Your task to perform on an android device: Empty the shopping cart on target.com. Add asus zenbook to the cart on target.com Image 0: 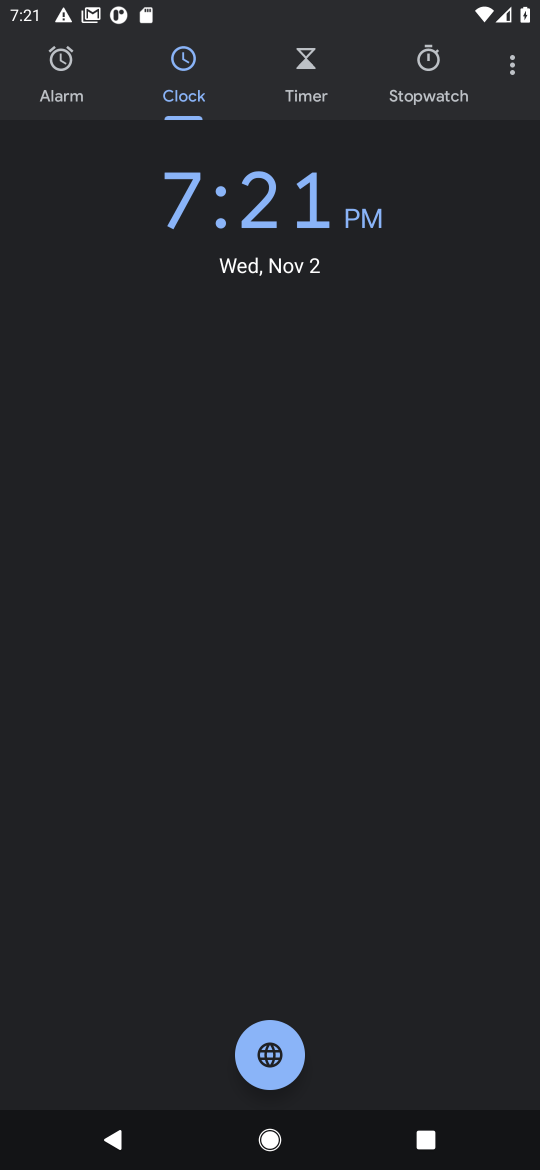
Step 0: press home button
Your task to perform on an android device: Empty the shopping cart on target.com. Add asus zenbook to the cart on target.com Image 1: 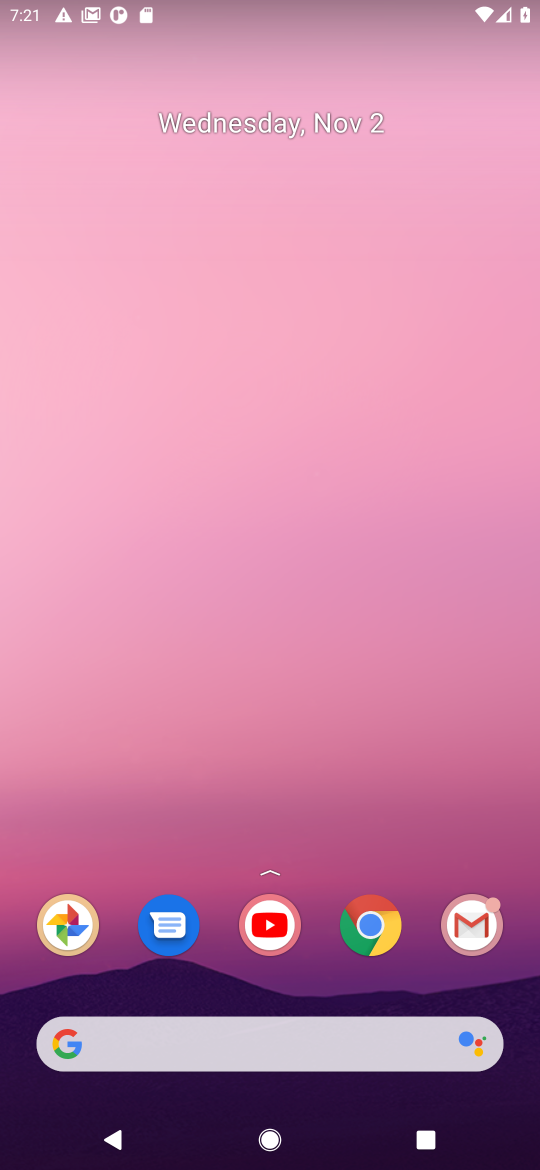
Step 1: click (101, 1032)
Your task to perform on an android device: Empty the shopping cart on target.com. Add asus zenbook to the cart on target.com Image 2: 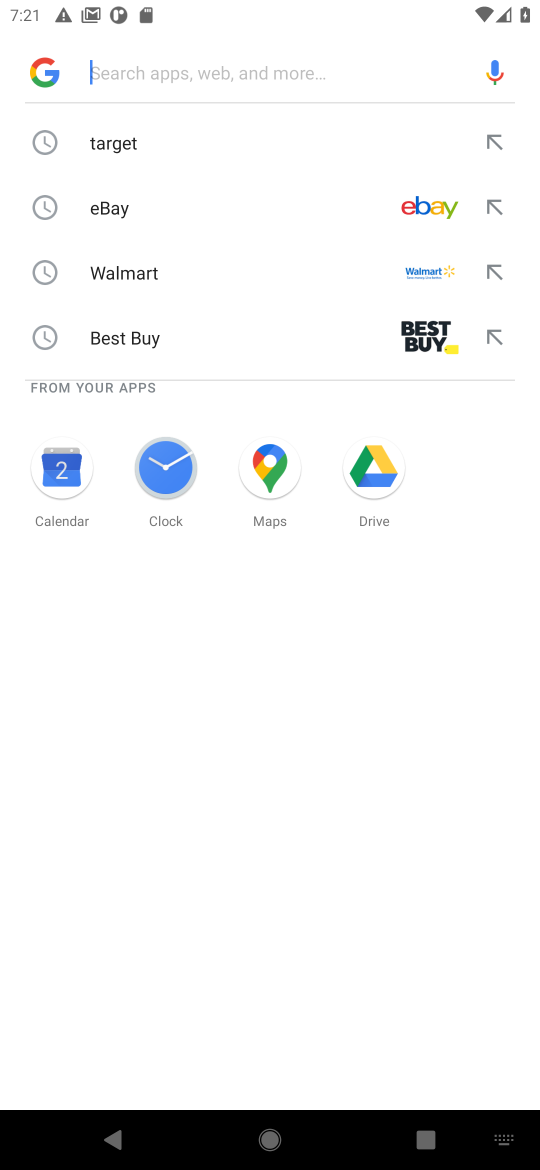
Step 2: type "target.com"
Your task to perform on an android device: Empty the shopping cart on target.com. Add asus zenbook to the cart on target.com Image 3: 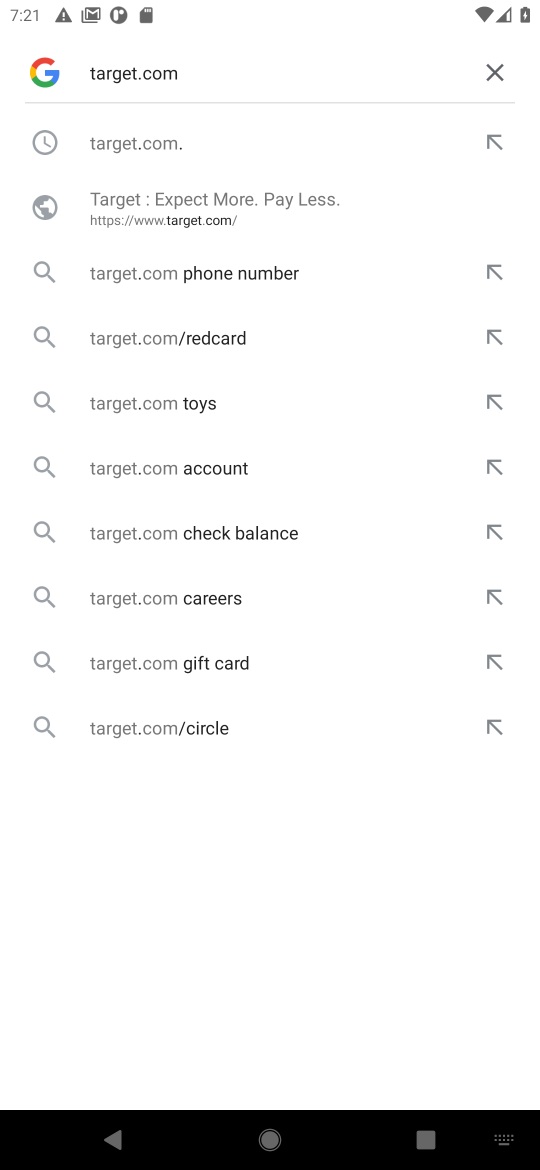
Step 3: press enter
Your task to perform on an android device: Empty the shopping cart on target.com. Add asus zenbook to the cart on target.com Image 4: 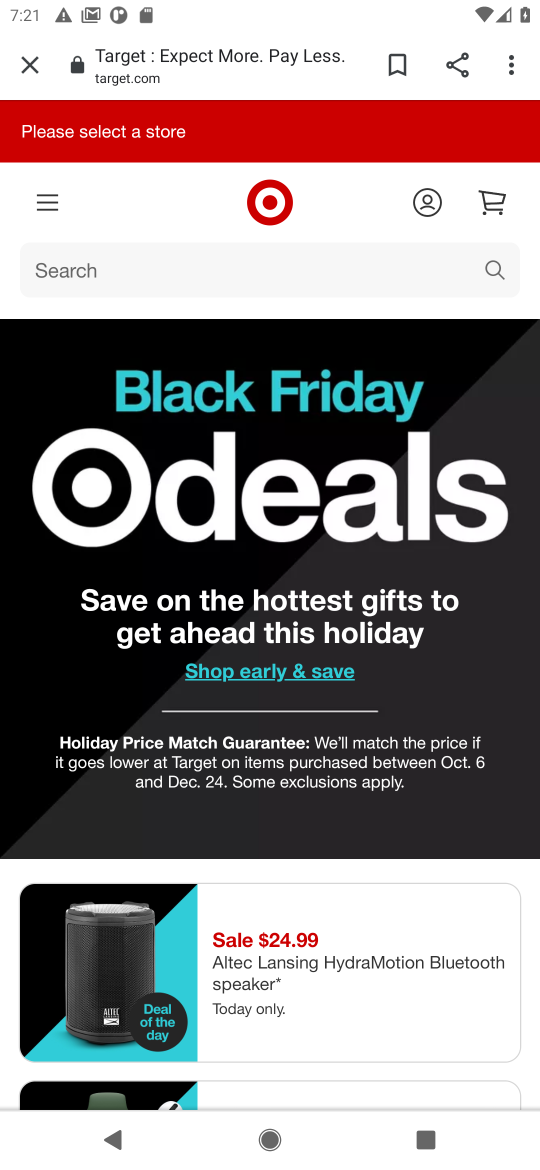
Step 4: click (491, 198)
Your task to perform on an android device: Empty the shopping cart on target.com. Add asus zenbook to the cart on target.com Image 5: 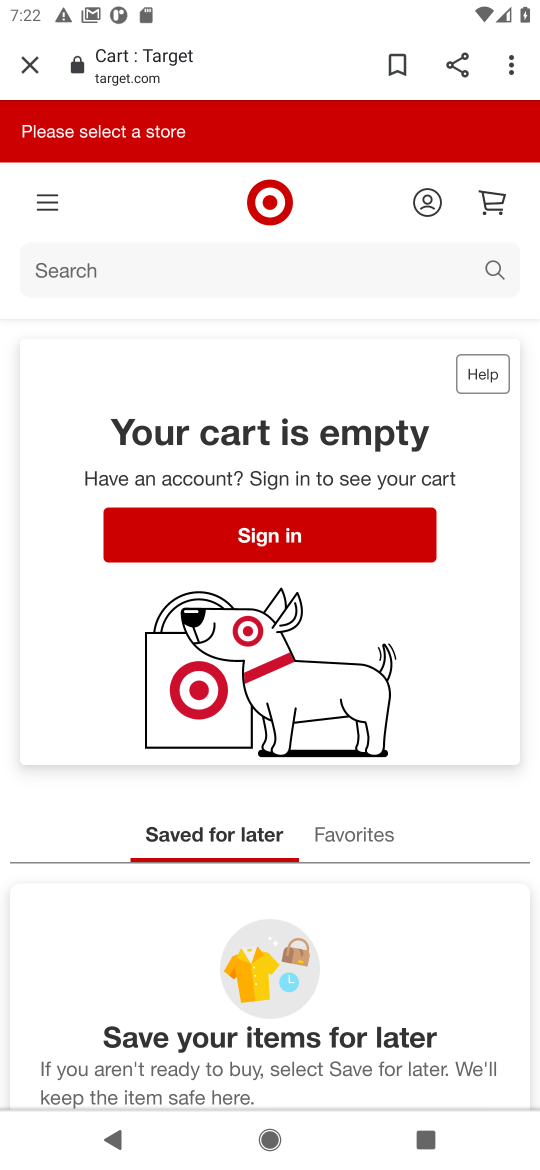
Step 5: click (109, 259)
Your task to perform on an android device: Empty the shopping cart on target.com. Add asus zenbook to the cart on target.com Image 6: 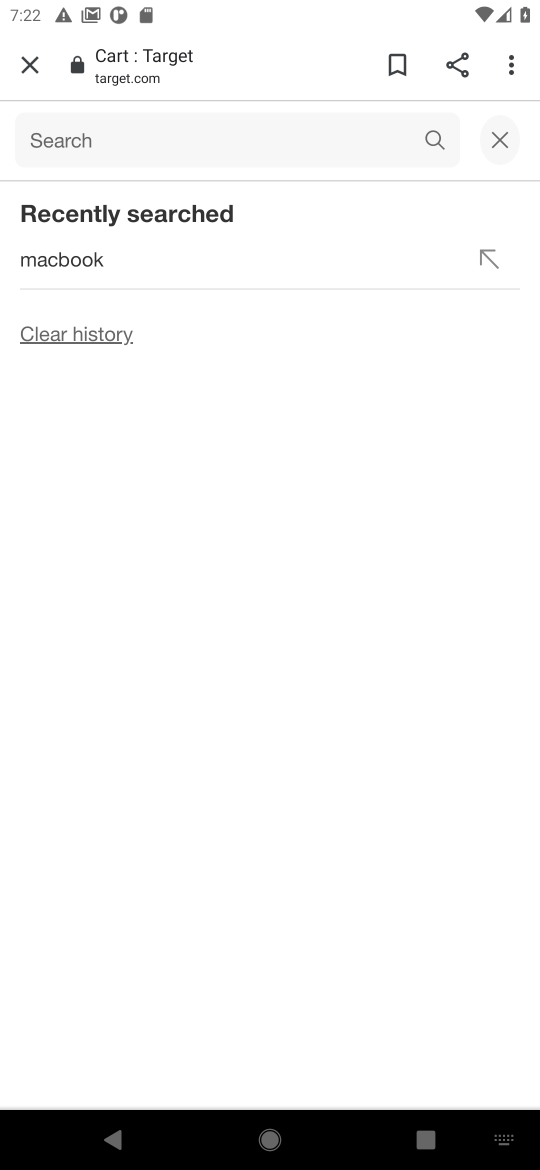
Step 6: type "asus zenbook"
Your task to perform on an android device: Empty the shopping cart on target.com. Add asus zenbook to the cart on target.com Image 7: 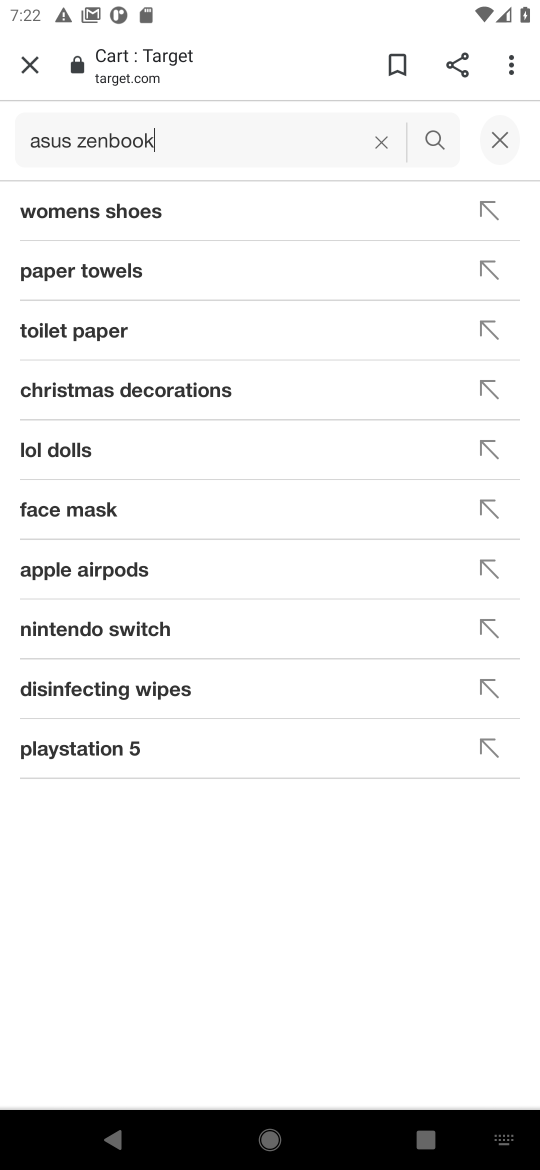
Step 7: press enter
Your task to perform on an android device: Empty the shopping cart on target.com. Add asus zenbook to the cart on target.com Image 8: 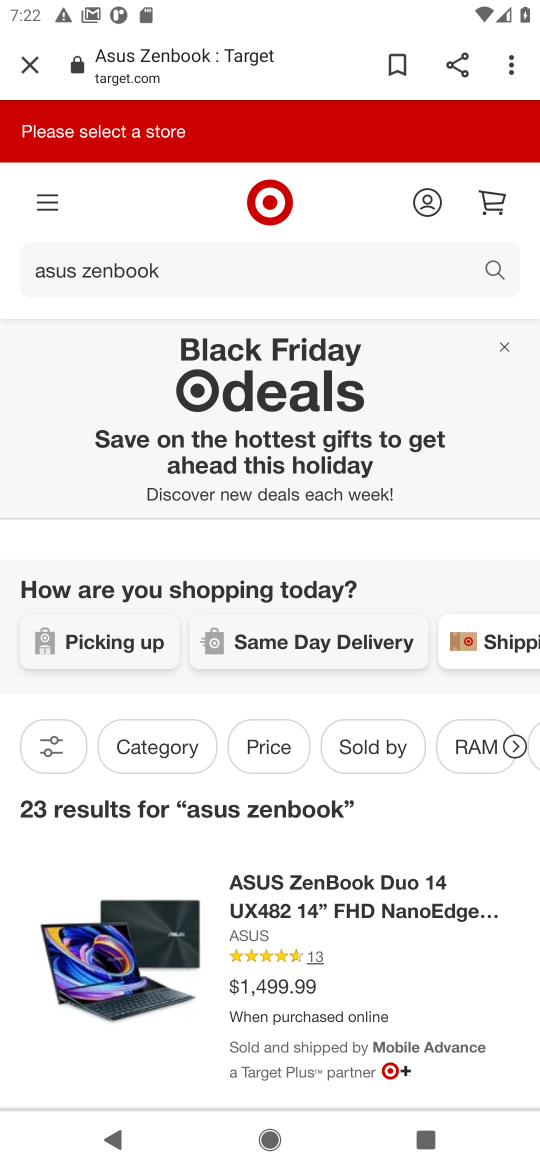
Step 8: drag from (374, 949) to (383, 684)
Your task to perform on an android device: Empty the shopping cart on target.com. Add asus zenbook to the cart on target.com Image 9: 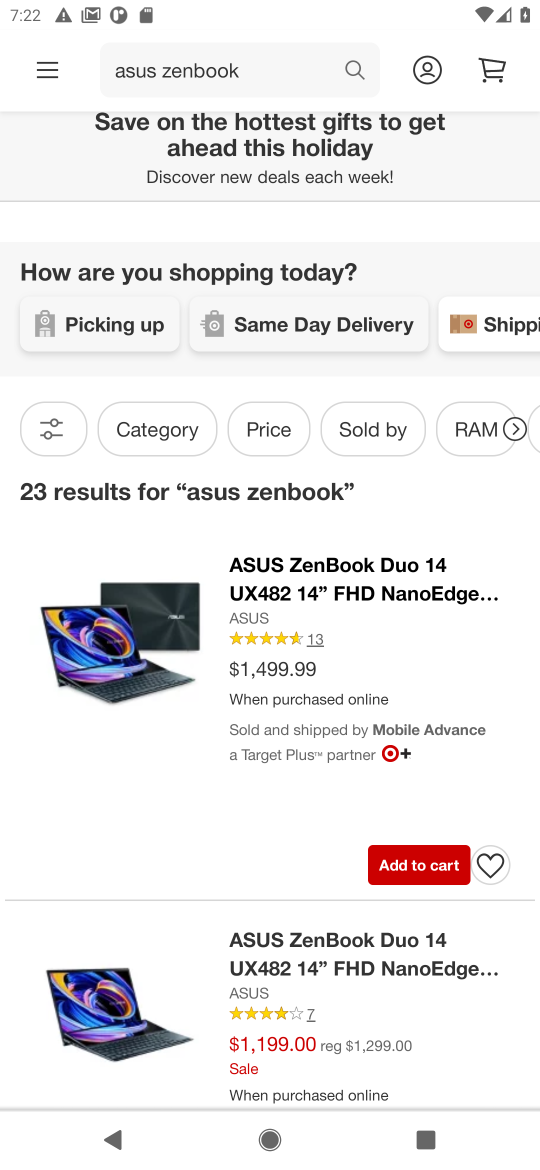
Step 9: click (402, 875)
Your task to perform on an android device: Empty the shopping cart on target.com. Add asus zenbook to the cart on target.com Image 10: 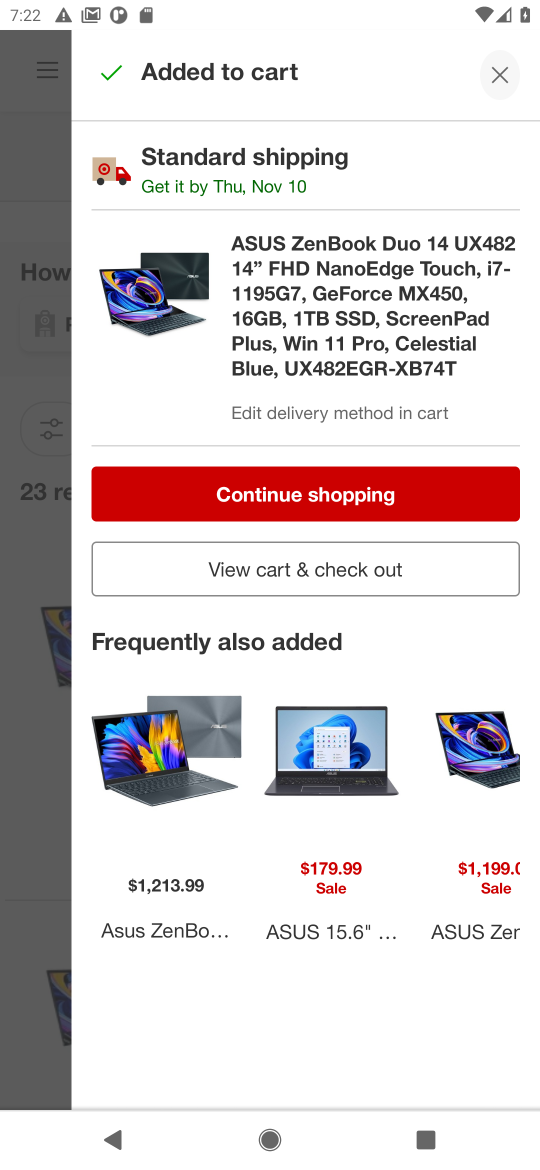
Step 10: task complete